Your task to perform on an android device: turn off airplane mode Image 0: 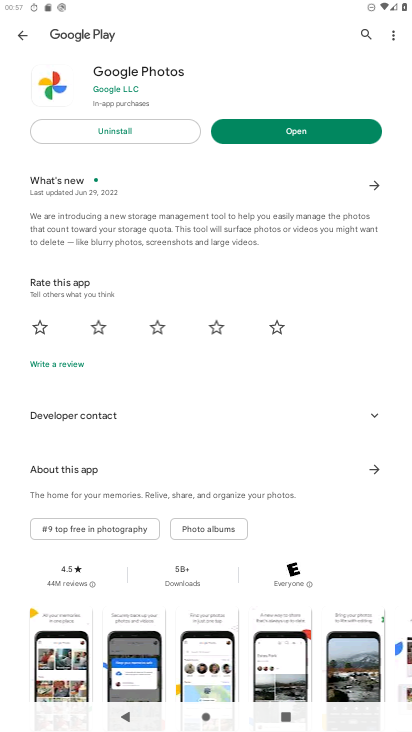
Step 0: press home button
Your task to perform on an android device: turn off airplane mode Image 1: 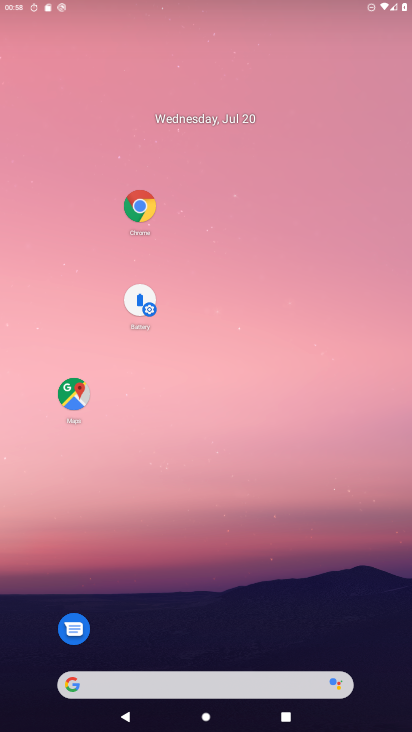
Step 1: drag from (210, 564) to (267, 11)
Your task to perform on an android device: turn off airplane mode Image 2: 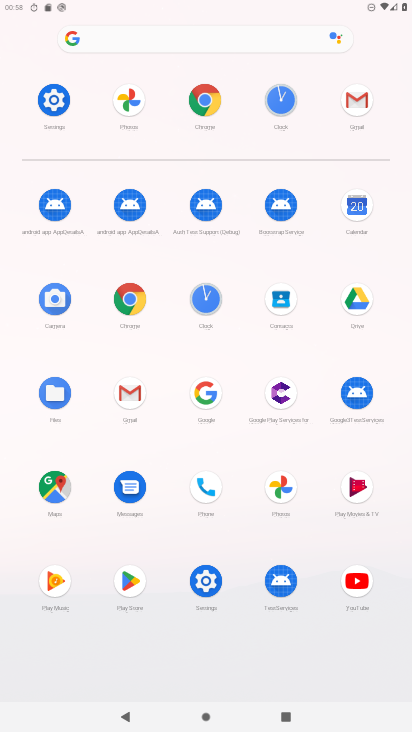
Step 2: click (44, 105)
Your task to perform on an android device: turn off airplane mode Image 3: 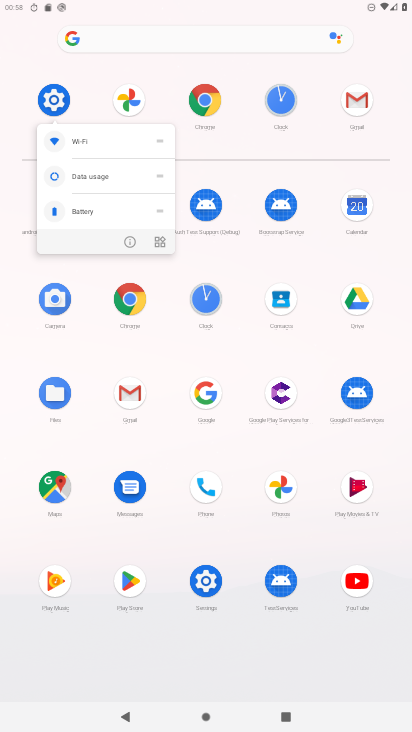
Step 3: click (126, 236)
Your task to perform on an android device: turn off airplane mode Image 4: 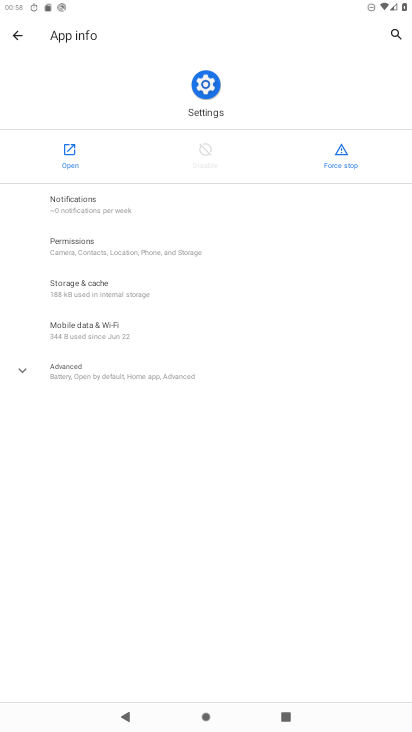
Step 4: click (65, 146)
Your task to perform on an android device: turn off airplane mode Image 5: 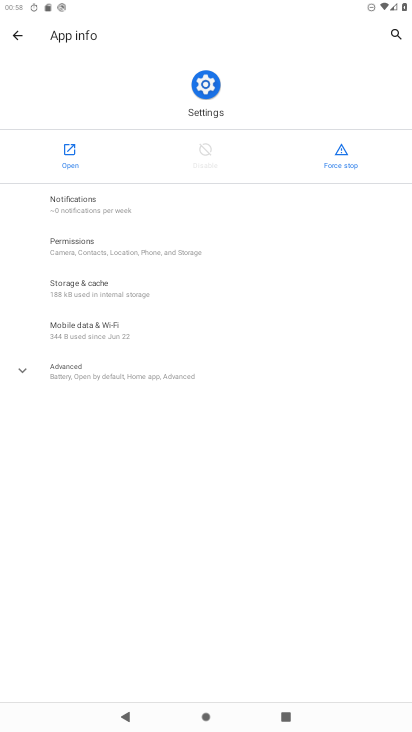
Step 5: click (65, 146)
Your task to perform on an android device: turn off airplane mode Image 6: 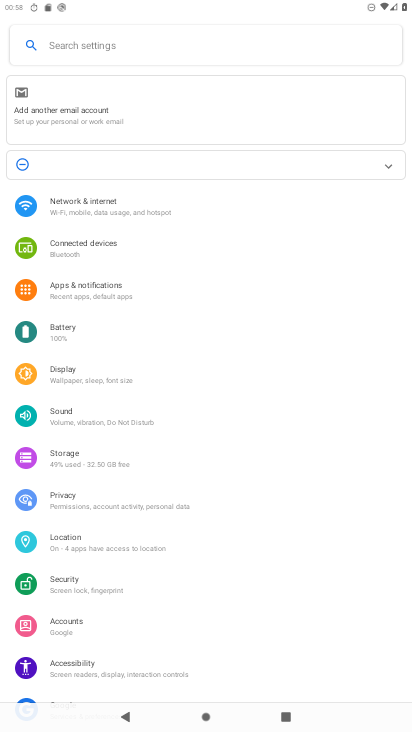
Step 6: click (115, 209)
Your task to perform on an android device: turn off airplane mode Image 7: 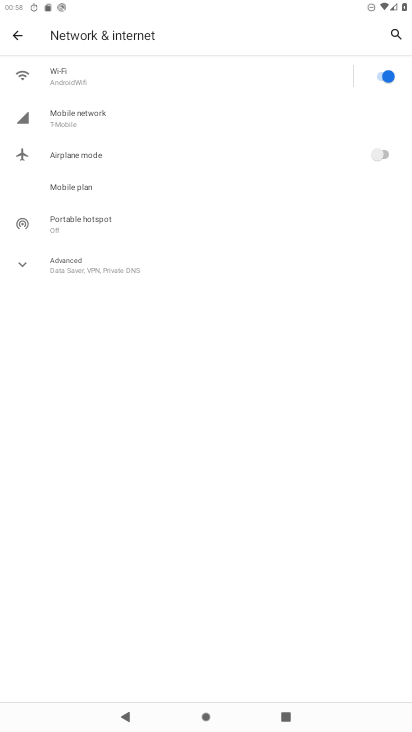
Step 7: task complete